Your task to perform on an android device: Open Yahoo.com Image 0: 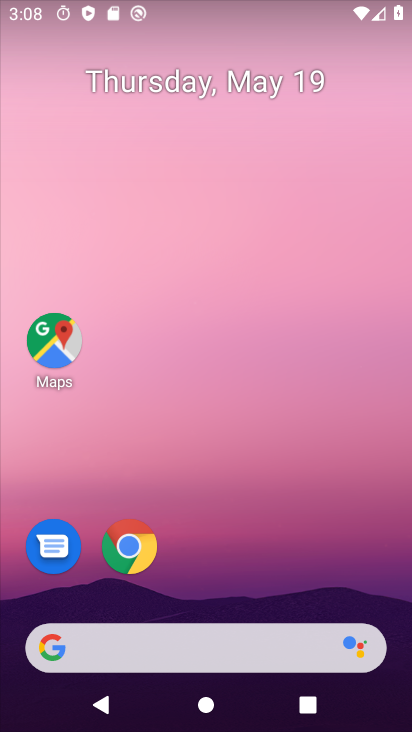
Step 0: drag from (218, 594) to (226, 60)
Your task to perform on an android device: Open Yahoo.com Image 1: 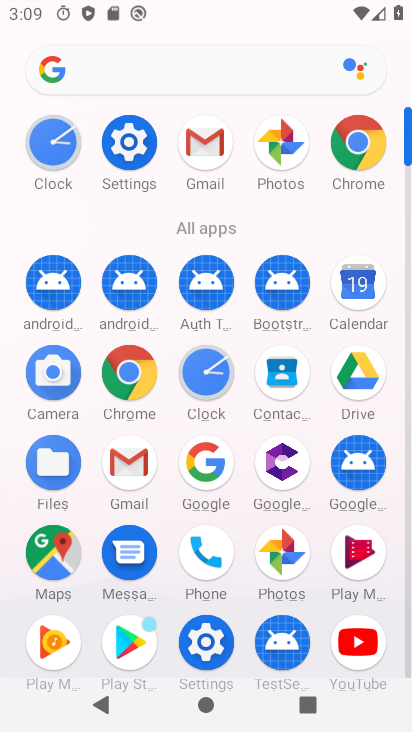
Step 1: click (362, 137)
Your task to perform on an android device: Open Yahoo.com Image 2: 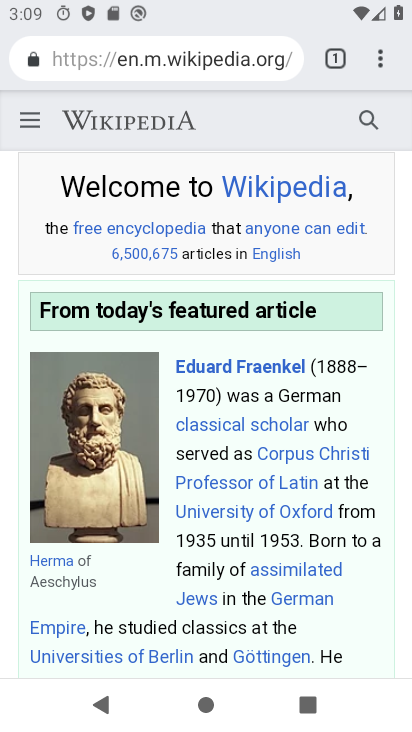
Step 2: click (329, 50)
Your task to perform on an android device: Open Yahoo.com Image 3: 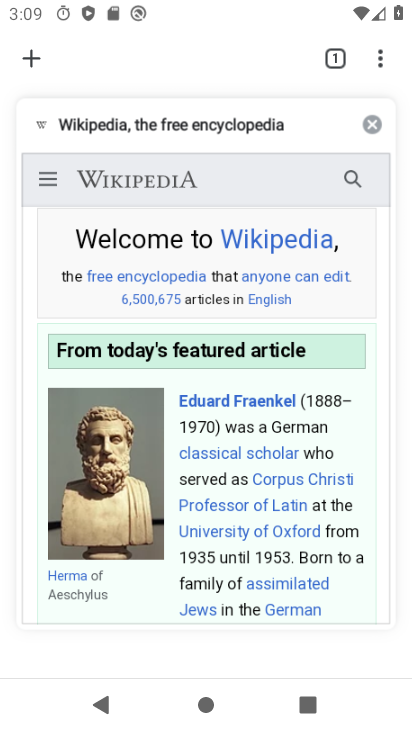
Step 3: click (370, 121)
Your task to perform on an android device: Open Yahoo.com Image 4: 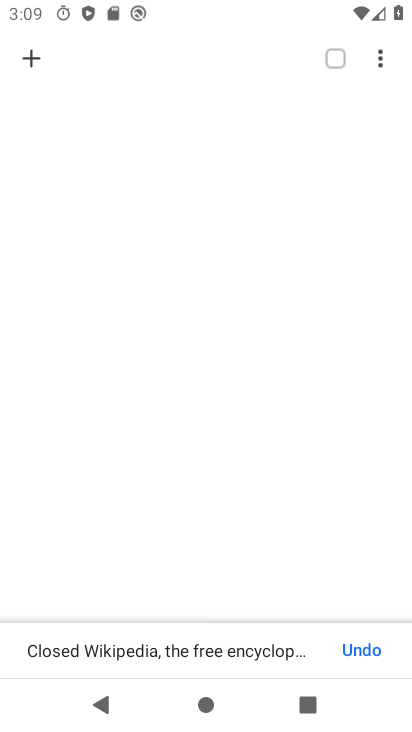
Step 4: click (42, 55)
Your task to perform on an android device: Open Yahoo.com Image 5: 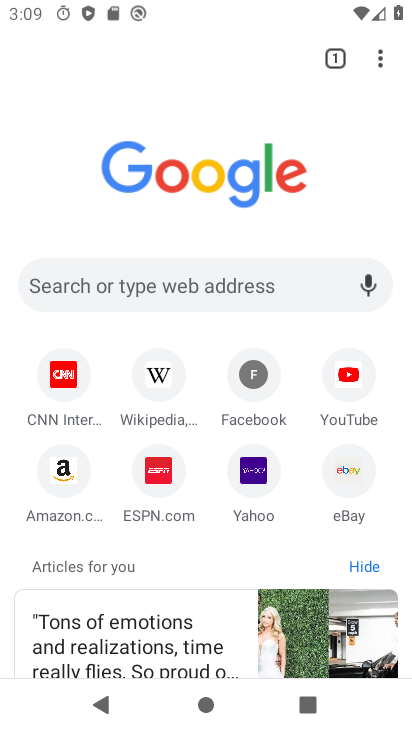
Step 5: click (252, 472)
Your task to perform on an android device: Open Yahoo.com Image 6: 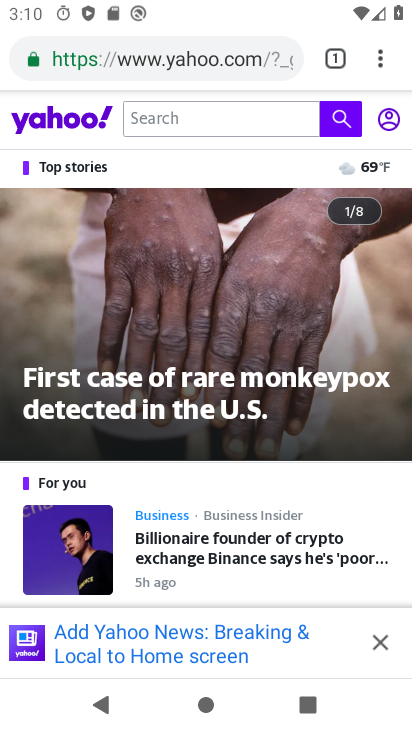
Step 6: task complete